Your task to perform on an android device: Go to eBay Image 0: 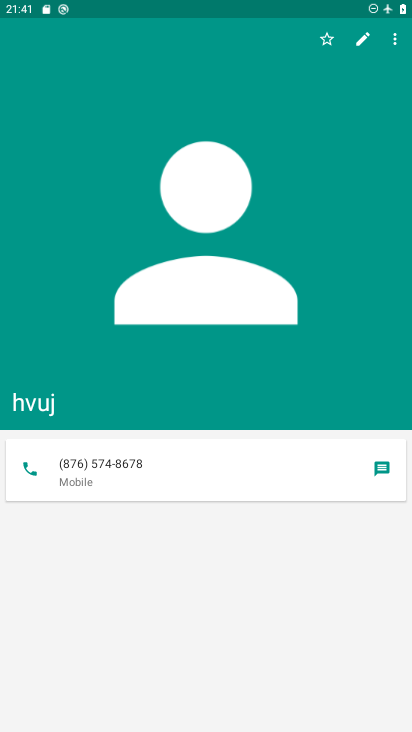
Step 0: press home button
Your task to perform on an android device: Go to eBay Image 1: 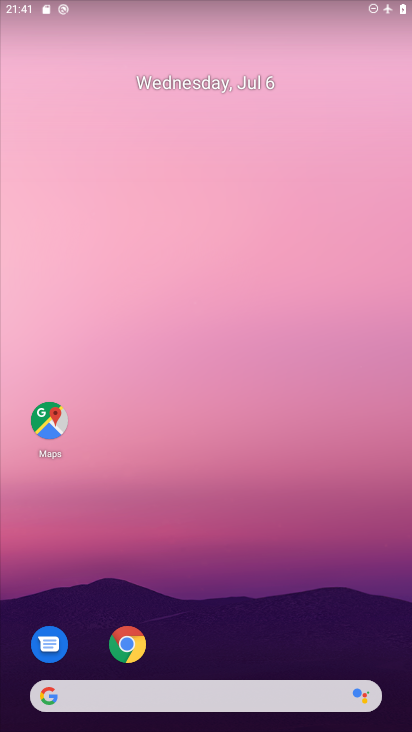
Step 1: click (130, 651)
Your task to perform on an android device: Go to eBay Image 2: 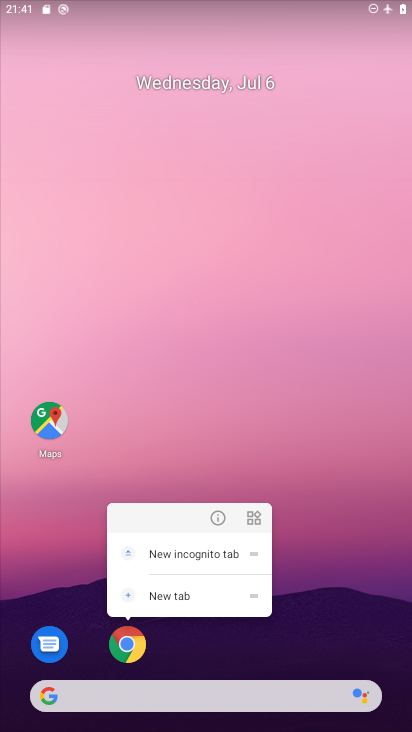
Step 2: click (129, 628)
Your task to perform on an android device: Go to eBay Image 3: 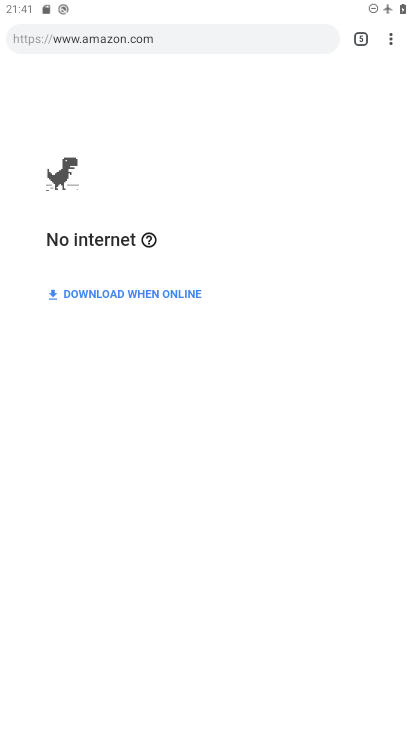
Step 3: click (360, 42)
Your task to perform on an android device: Go to eBay Image 4: 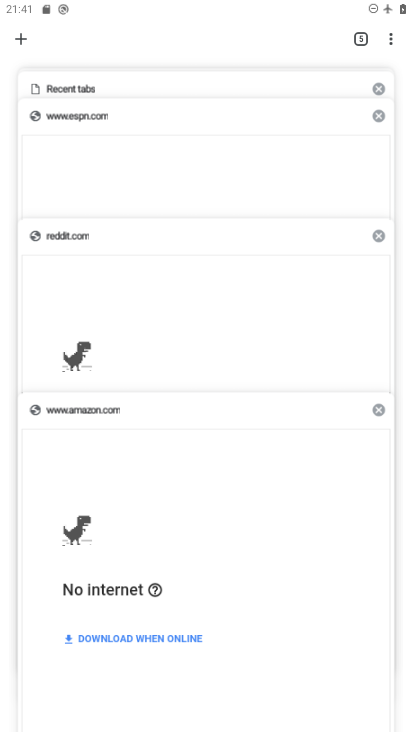
Step 4: click (22, 36)
Your task to perform on an android device: Go to eBay Image 5: 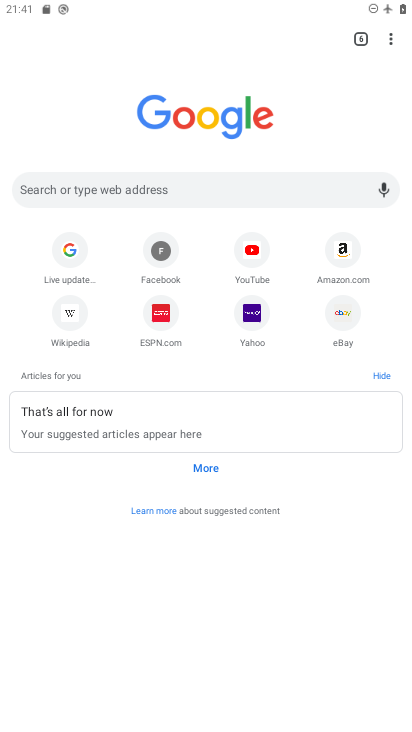
Step 5: click (328, 319)
Your task to perform on an android device: Go to eBay Image 6: 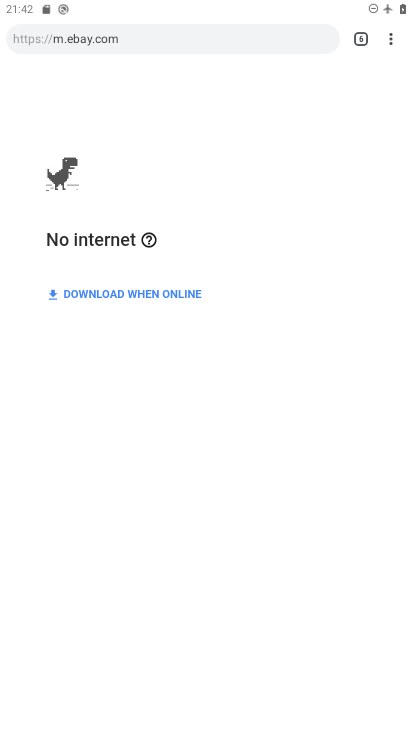
Step 6: task complete